Your task to perform on an android device: Is it going to rain this weekend? Image 0: 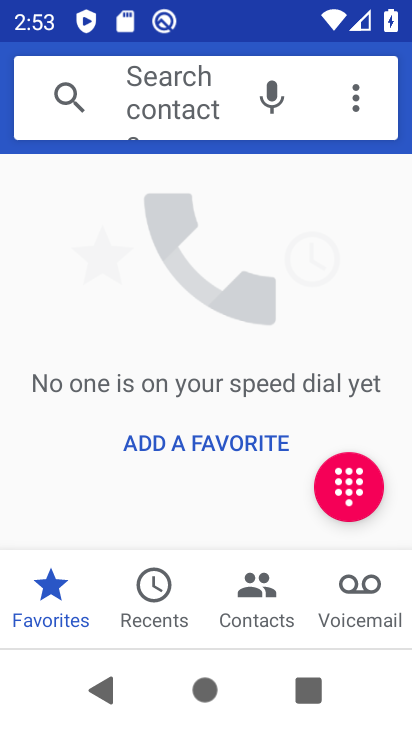
Step 0: press home button
Your task to perform on an android device: Is it going to rain this weekend? Image 1: 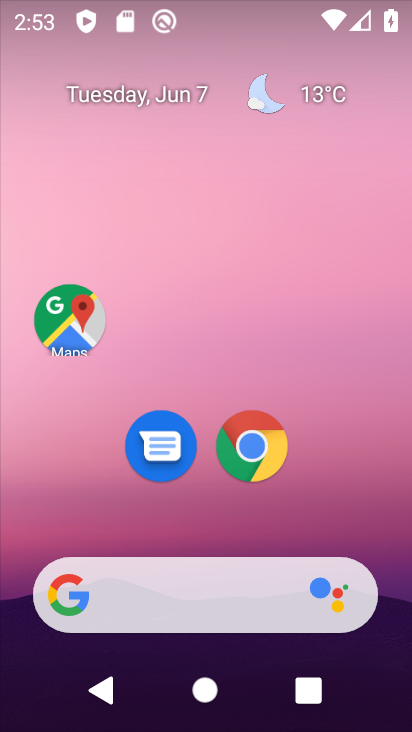
Step 1: drag from (228, 474) to (162, 9)
Your task to perform on an android device: Is it going to rain this weekend? Image 2: 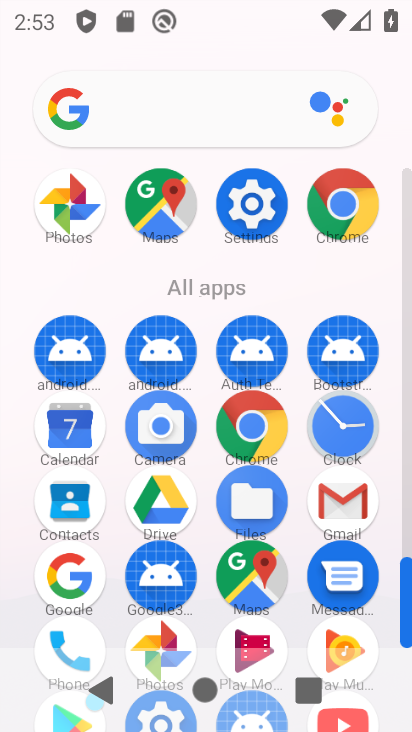
Step 2: click (66, 592)
Your task to perform on an android device: Is it going to rain this weekend? Image 3: 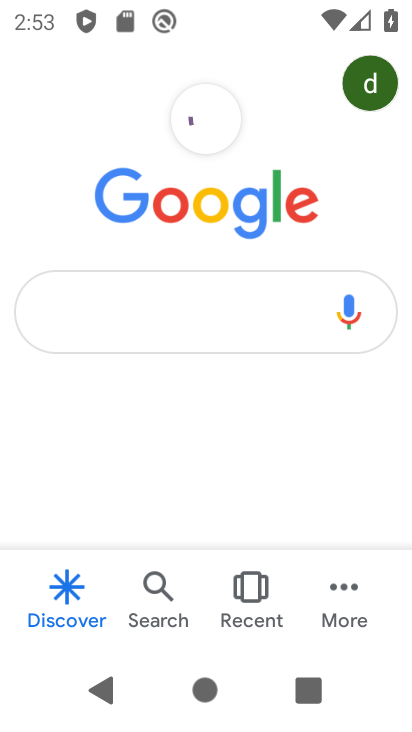
Step 3: click (145, 343)
Your task to perform on an android device: Is it going to rain this weekend? Image 4: 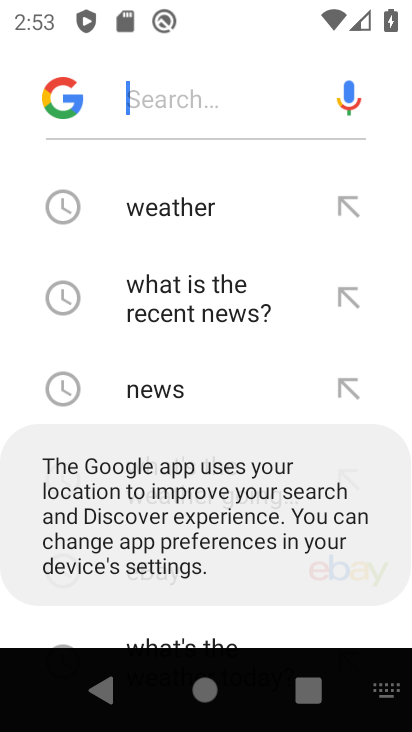
Step 4: click (138, 209)
Your task to perform on an android device: Is it going to rain this weekend? Image 5: 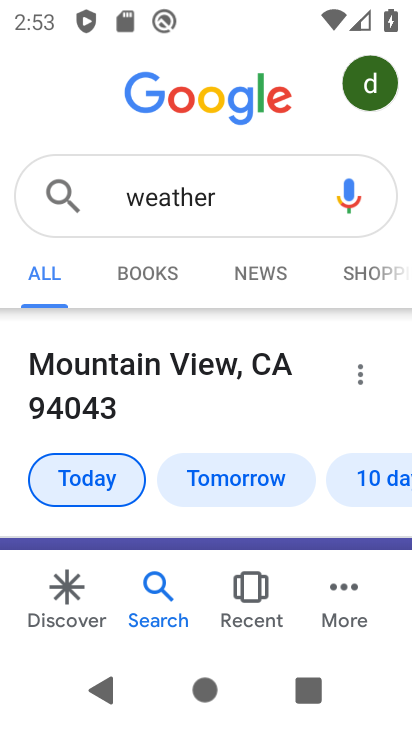
Step 5: click (350, 480)
Your task to perform on an android device: Is it going to rain this weekend? Image 6: 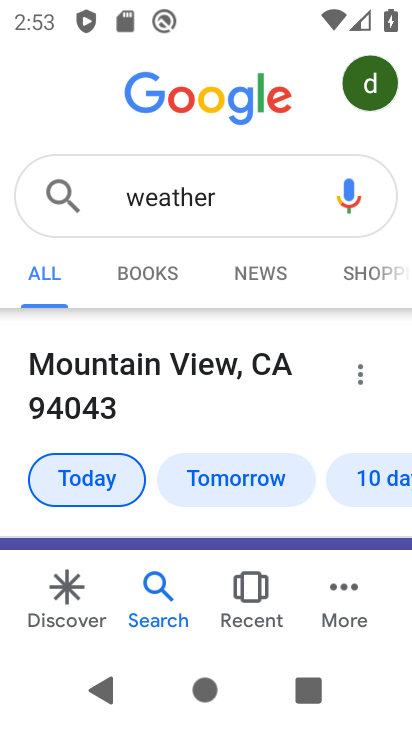
Step 6: task complete